Your task to perform on an android device: add a contact in the contacts app Image 0: 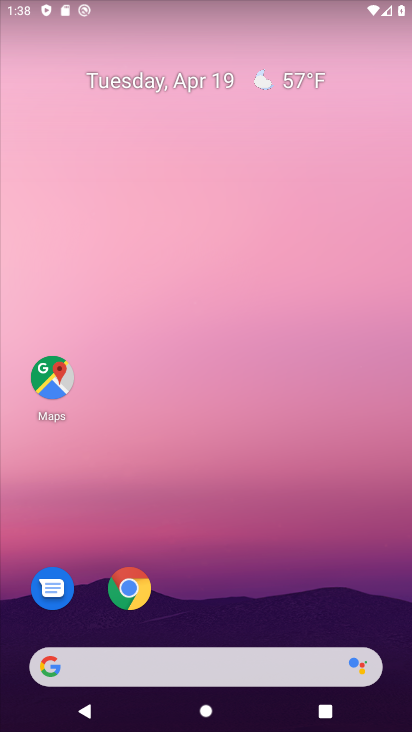
Step 0: drag from (255, 576) to (245, 128)
Your task to perform on an android device: add a contact in the contacts app Image 1: 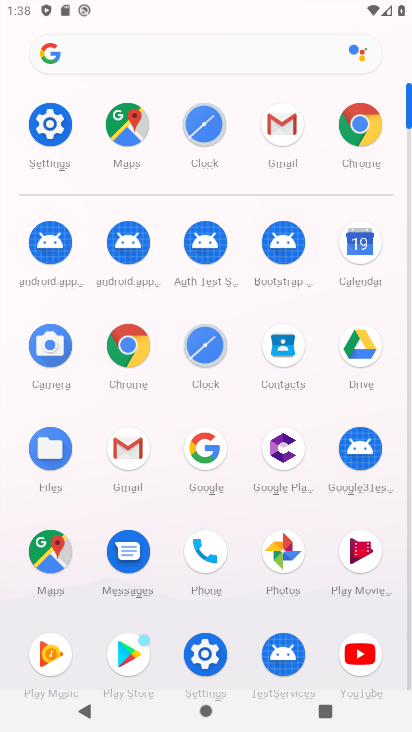
Step 1: click (284, 352)
Your task to perform on an android device: add a contact in the contacts app Image 2: 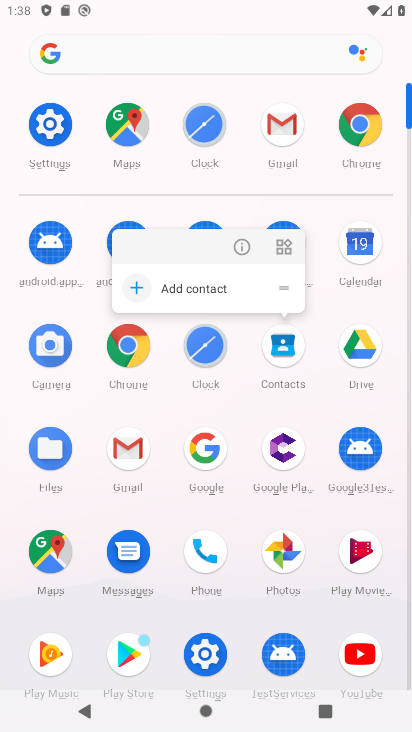
Step 2: click (288, 346)
Your task to perform on an android device: add a contact in the contacts app Image 3: 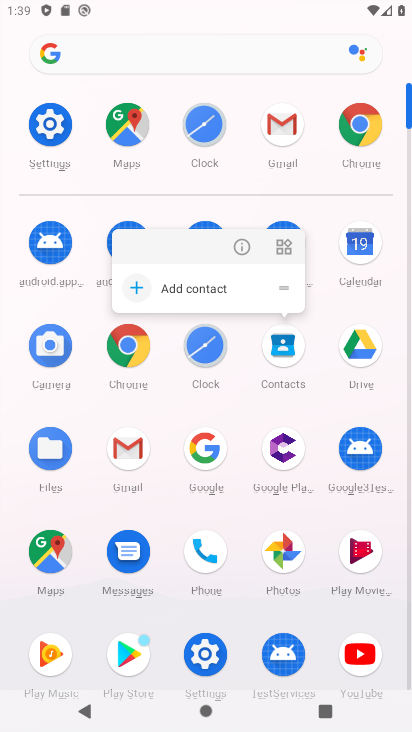
Step 3: click (295, 346)
Your task to perform on an android device: add a contact in the contacts app Image 4: 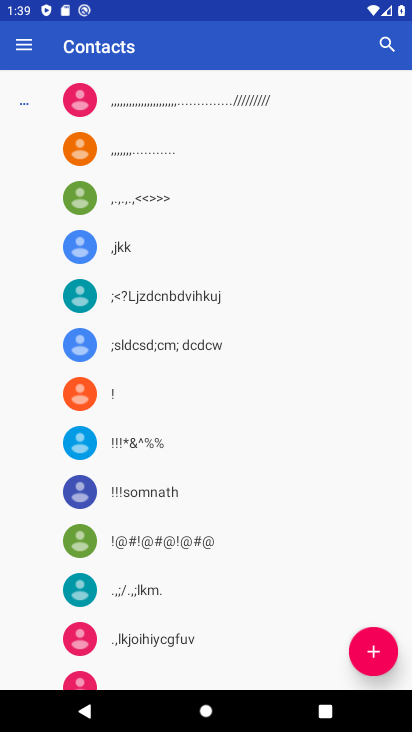
Step 4: click (377, 653)
Your task to perform on an android device: add a contact in the contacts app Image 5: 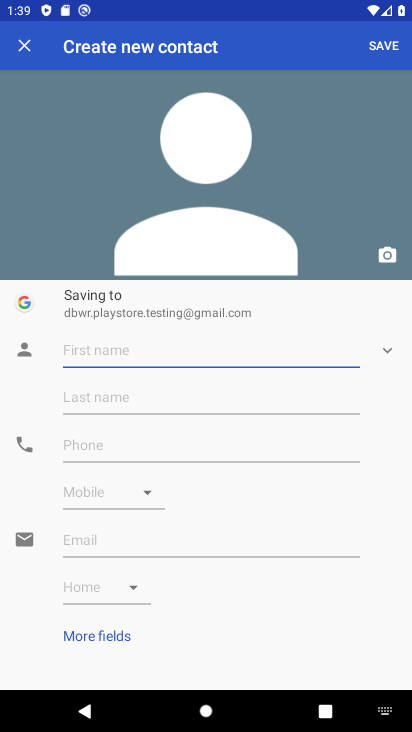
Step 5: type "Shri Narendra Bhai Modi"
Your task to perform on an android device: add a contact in the contacts app Image 6: 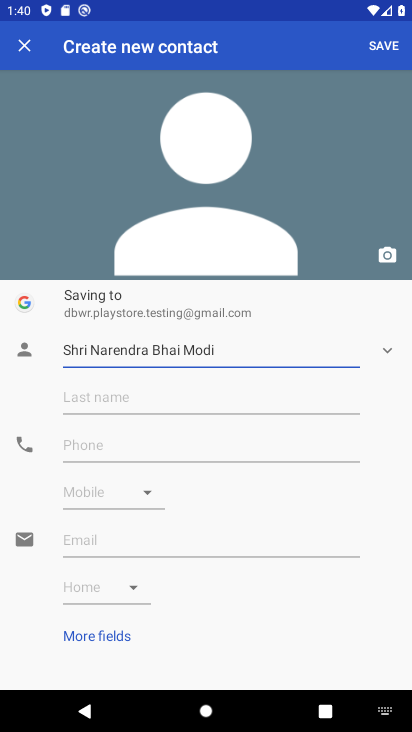
Step 6: click (157, 452)
Your task to perform on an android device: add a contact in the contacts app Image 7: 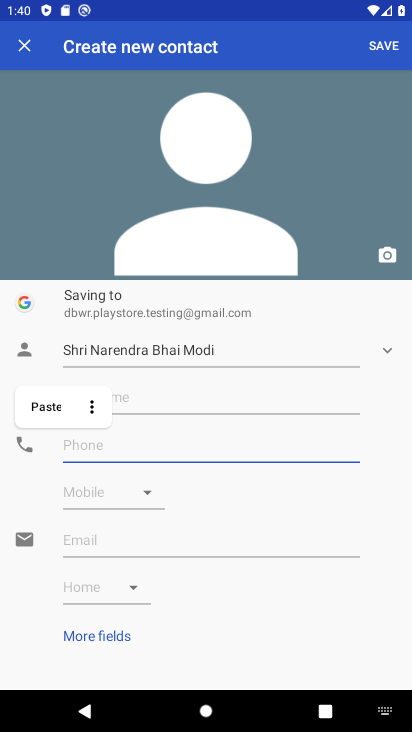
Step 7: type "919988776655"
Your task to perform on an android device: add a contact in the contacts app Image 8: 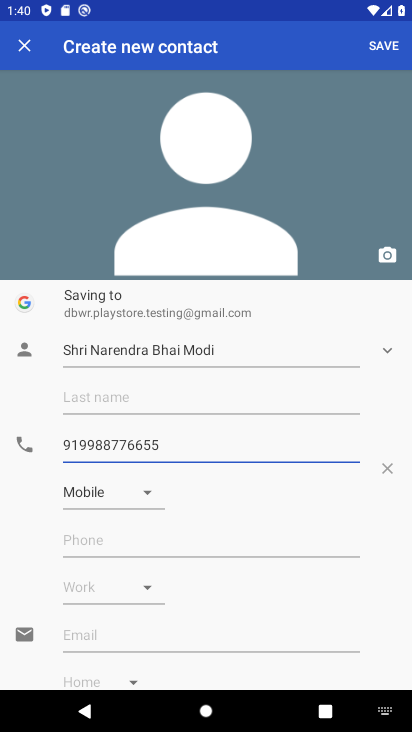
Step 8: click (389, 40)
Your task to perform on an android device: add a contact in the contacts app Image 9: 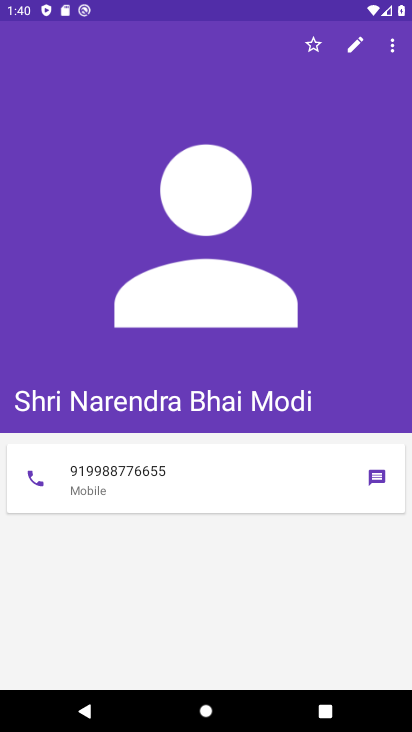
Step 9: task complete